Your task to perform on an android device: Go to Google maps Image 0: 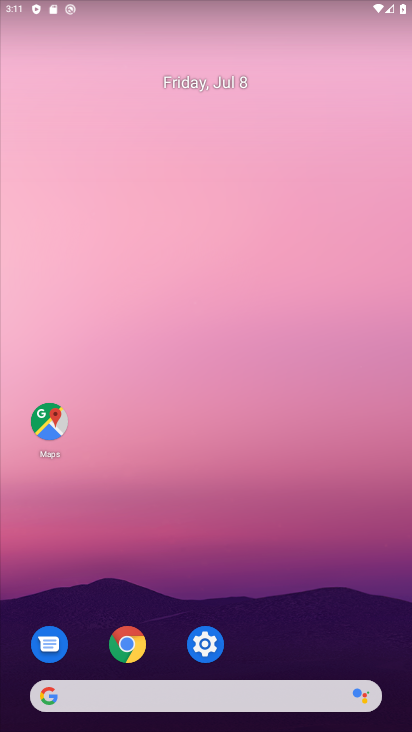
Step 0: click (55, 421)
Your task to perform on an android device: Go to Google maps Image 1: 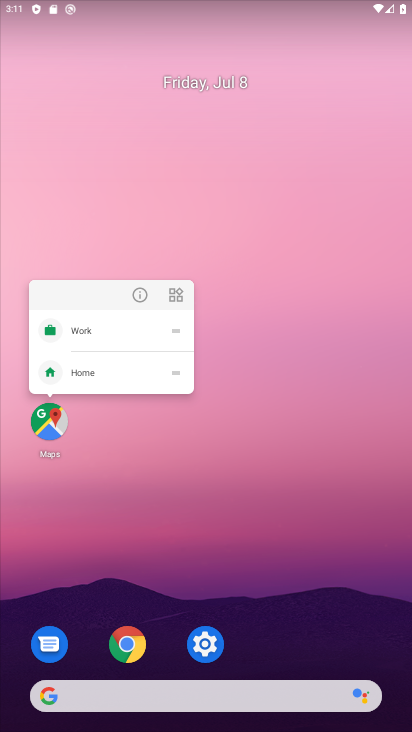
Step 1: click (57, 426)
Your task to perform on an android device: Go to Google maps Image 2: 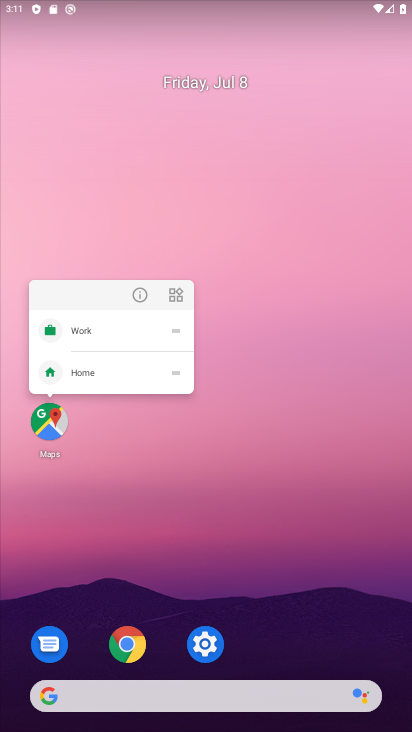
Step 2: click (54, 429)
Your task to perform on an android device: Go to Google maps Image 3: 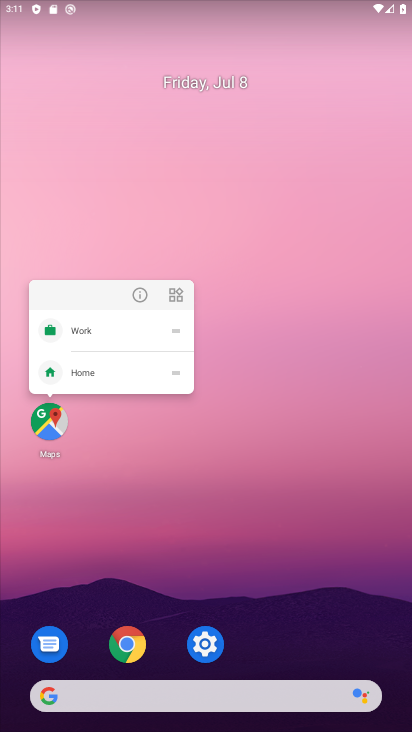
Step 3: click (39, 432)
Your task to perform on an android device: Go to Google maps Image 4: 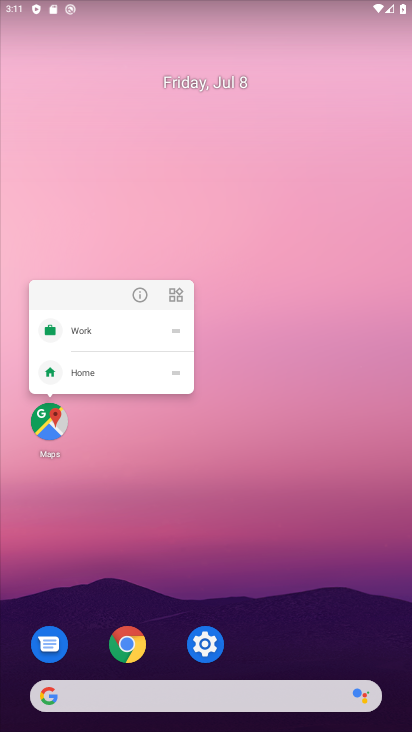
Step 4: task complete